Your task to perform on an android device: find which apps use the phone's location Image 0: 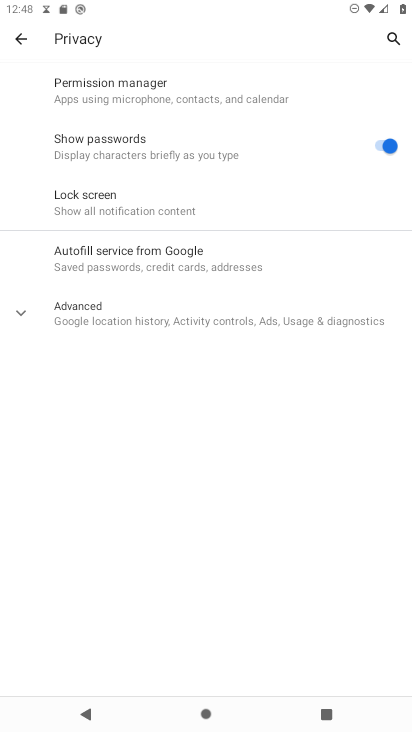
Step 0: press home button
Your task to perform on an android device: find which apps use the phone's location Image 1: 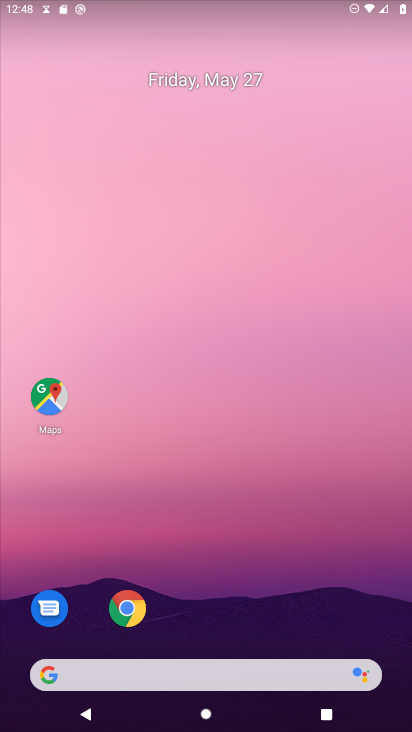
Step 1: drag from (146, 675) to (241, 176)
Your task to perform on an android device: find which apps use the phone's location Image 2: 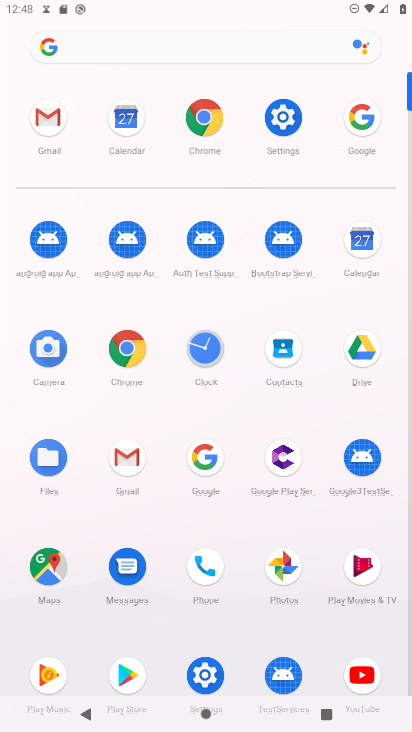
Step 2: click (282, 129)
Your task to perform on an android device: find which apps use the phone's location Image 3: 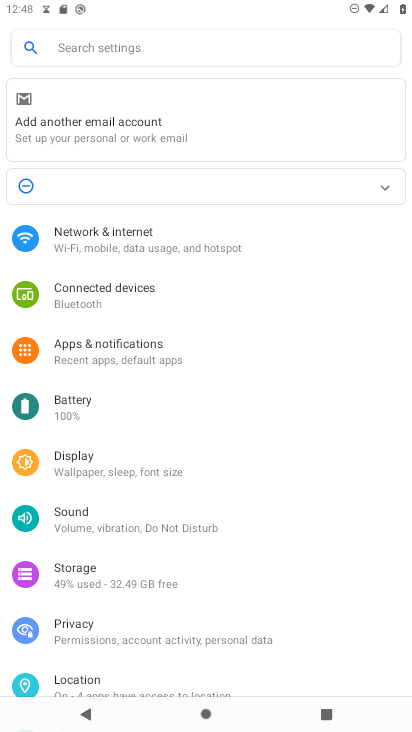
Step 3: drag from (146, 597) to (277, 284)
Your task to perform on an android device: find which apps use the phone's location Image 4: 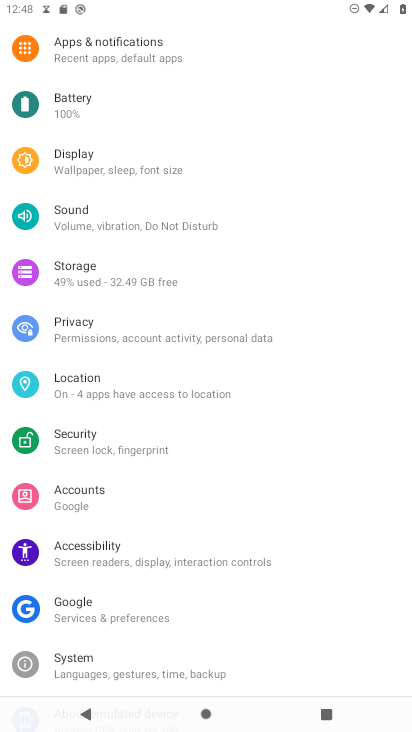
Step 4: click (119, 388)
Your task to perform on an android device: find which apps use the phone's location Image 5: 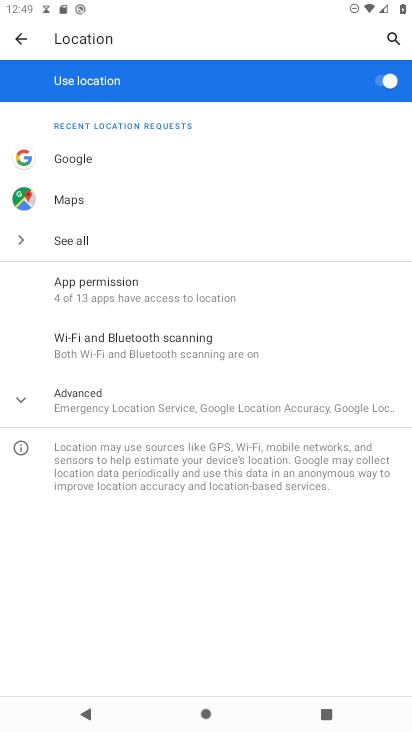
Step 5: click (144, 402)
Your task to perform on an android device: find which apps use the phone's location Image 6: 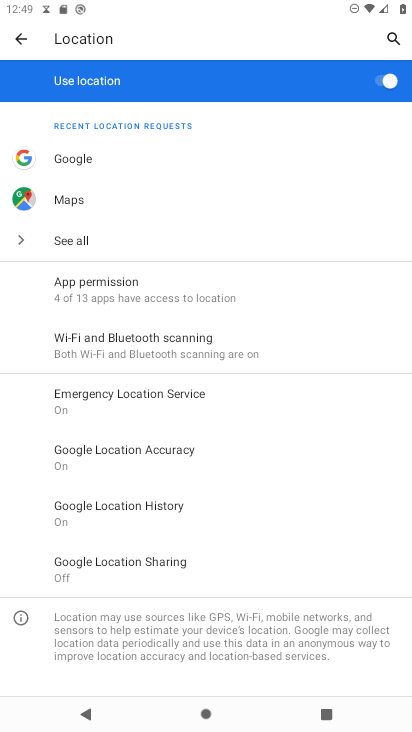
Step 6: drag from (230, 199) to (210, 489)
Your task to perform on an android device: find which apps use the phone's location Image 7: 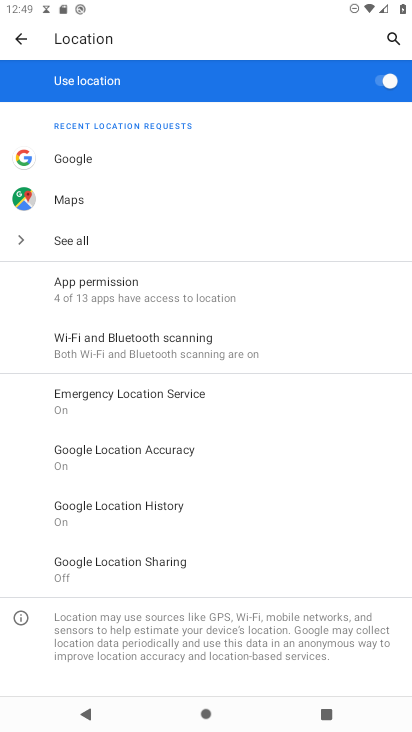
Step 7: click (143, 300)
Your task to perform on an android device: find which apps use the phone's location Image 8: 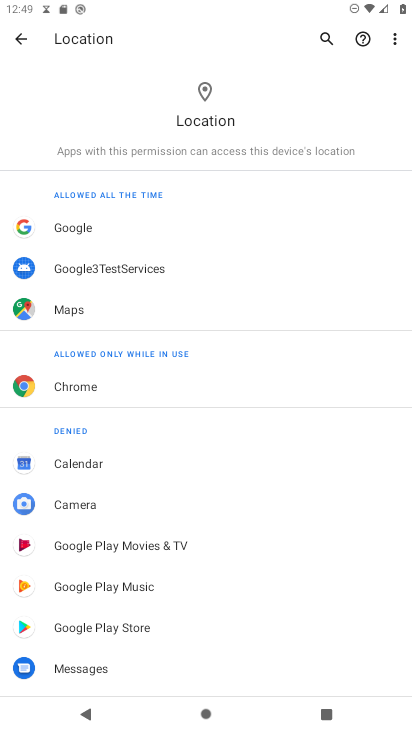
Step 8: drag from (198, 493) to (260, 236)
Your task to perform on an android device: find which apps use the phone's location Image 9: 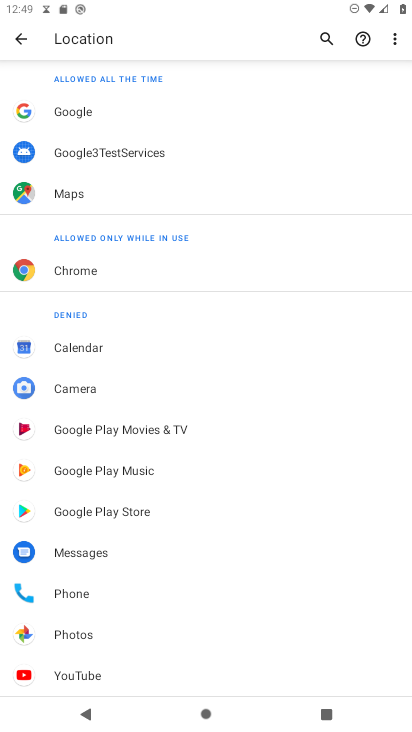
Step 9: click (84, 597)
Your task to perform on an android device: find which apps use the phone's location Image 10: 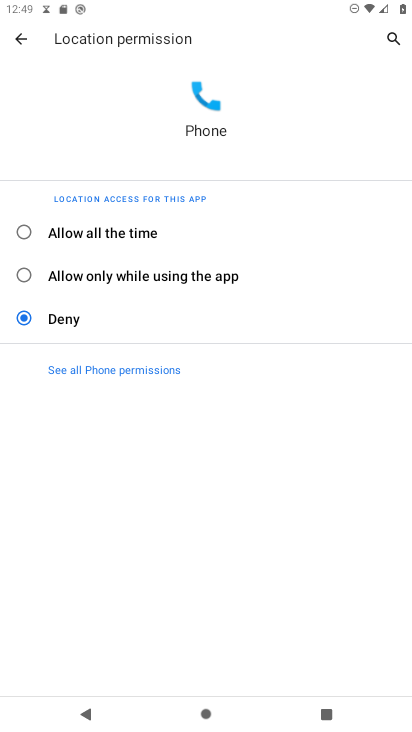
Step 10: task complete